Your task to perform on an android device: allow notifications from all sites in the chrome app Image 0: 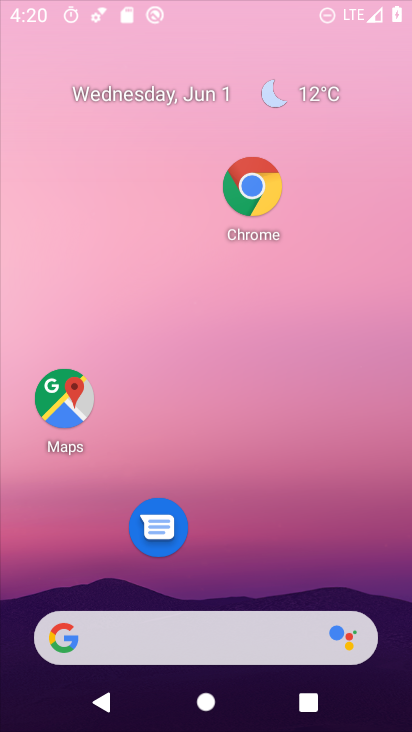
Step 0: drag from (303, 429) to (300, 115)
Your task to perform on an android device: allow notifications from all sites in the chrome app Image 1: 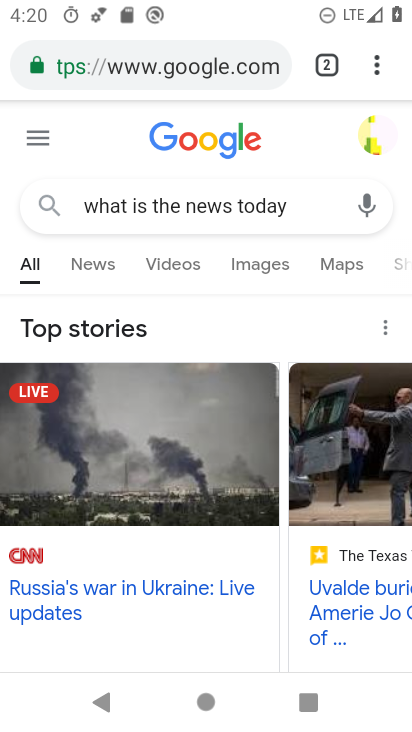
Step 1: press home button
Your task to perform on an android device: allow notifications from all sites in the chrome app Image 2: 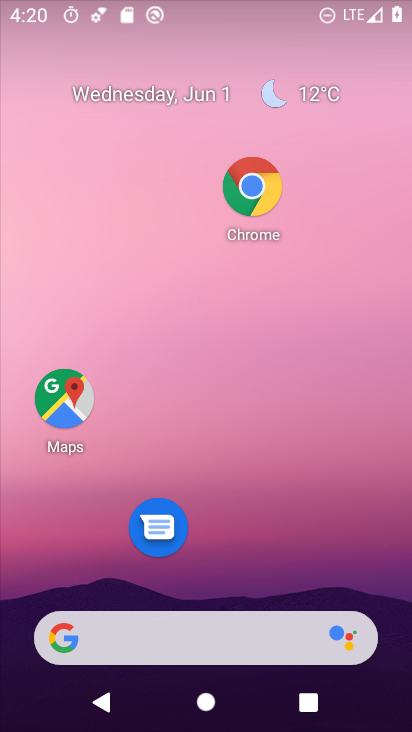
Step 2: drag from (225, 598) to (258, 7)
Your task to perform on an android device: allow notifications from all sites in the chrome app Image 3: 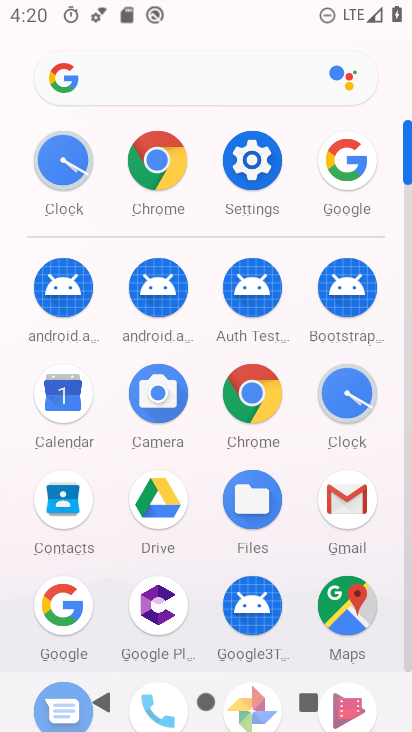
Step 3: click (258, 396)
Your task to perform on an android device: allow notifications from all sites in the chrome app Image 4: 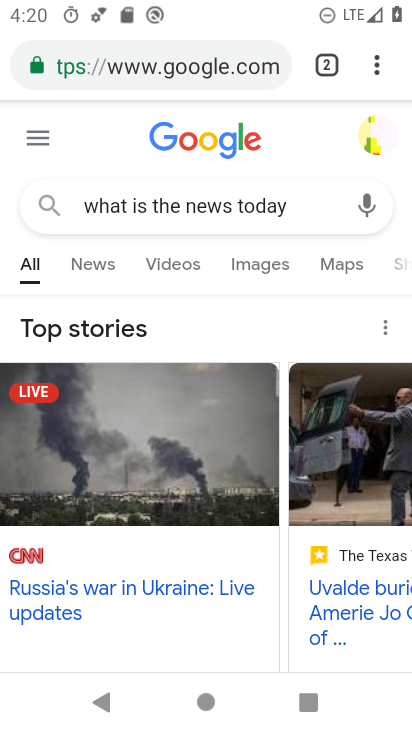
Step 4: click (377, 70)
Your task to perform on an android device: allow notifications from all sites in the chrome app Image 5: 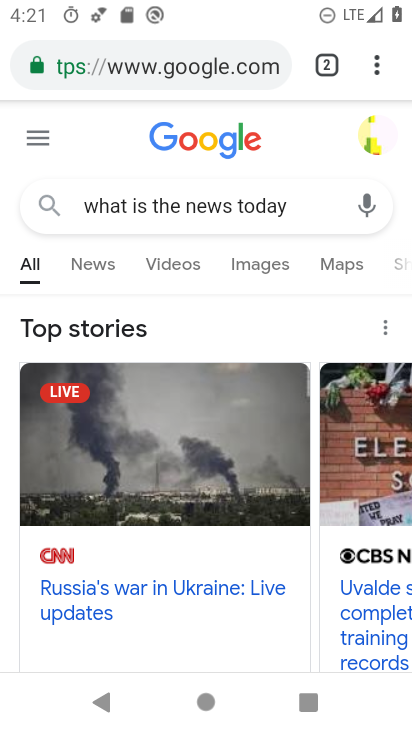
Step 5: click (386, 60)
Your task to perform on an android device: allow notifications from all sites in the chrome app Image 6: 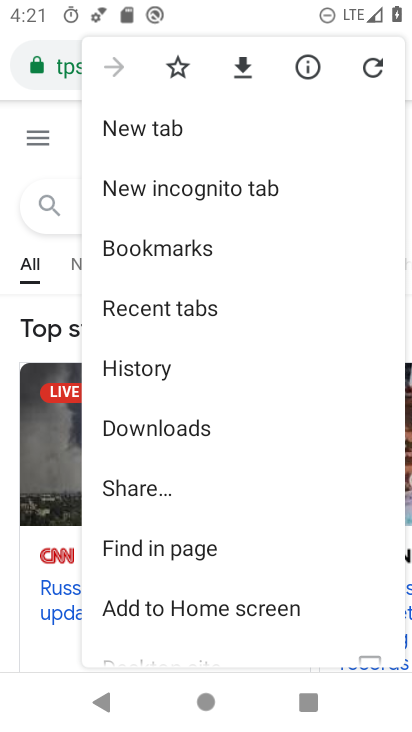
Step 6: drag from (202, 541) to (271, 120)
Your task to perform on an android device: allow notifications from all sites in the chrome app Image 7: 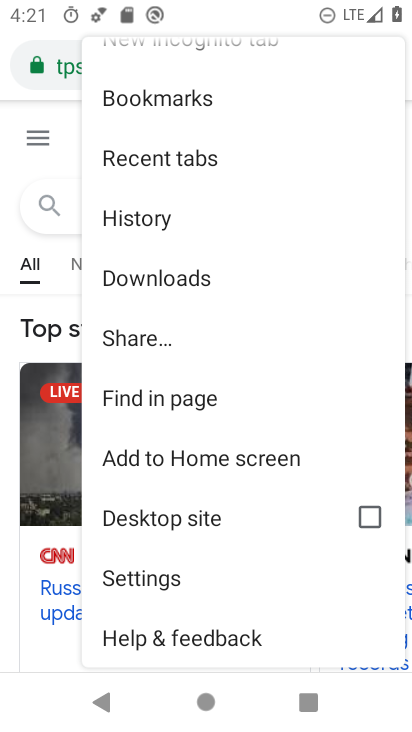
Step 7: click (158, 586)
Your task to perform on an android device: allow notifications from all sites in the chrome app Image 8: 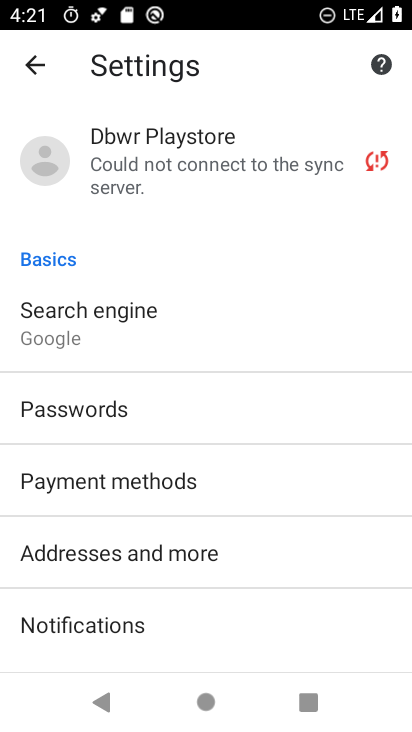
Step 8: drag from (197, 481) to (318, 96)
Your task to perform on an android device: allow notifications from all sites in the chrome app Image 9: 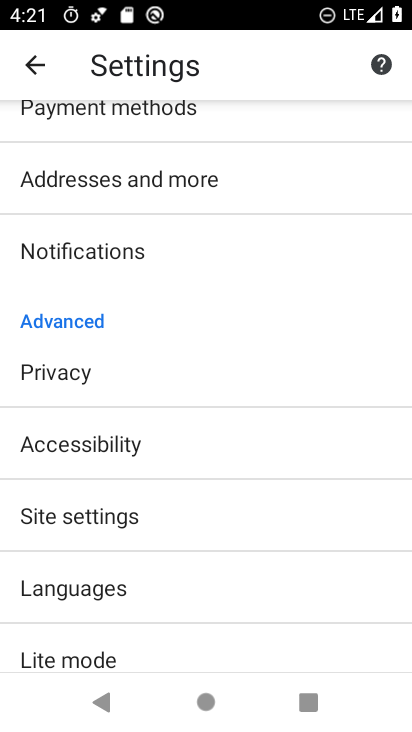
Step 9: click (127, 246)
Your task to perform on an android device: allow notifications from all sites in the chrome app Image 10: 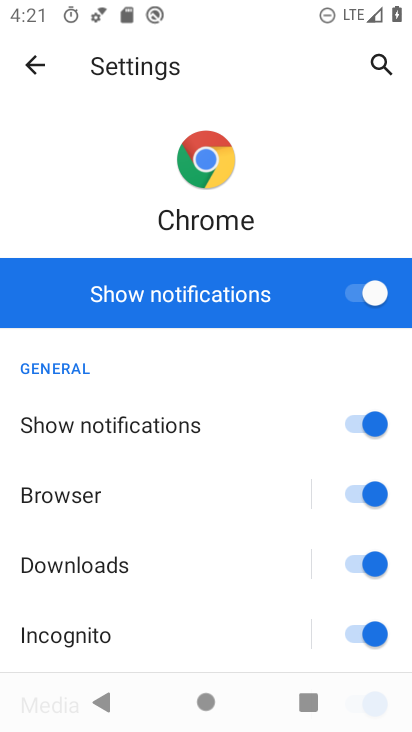
Step 10: task complete